Your task to perform on an android device: open a new tab in the chrome app Image 0: 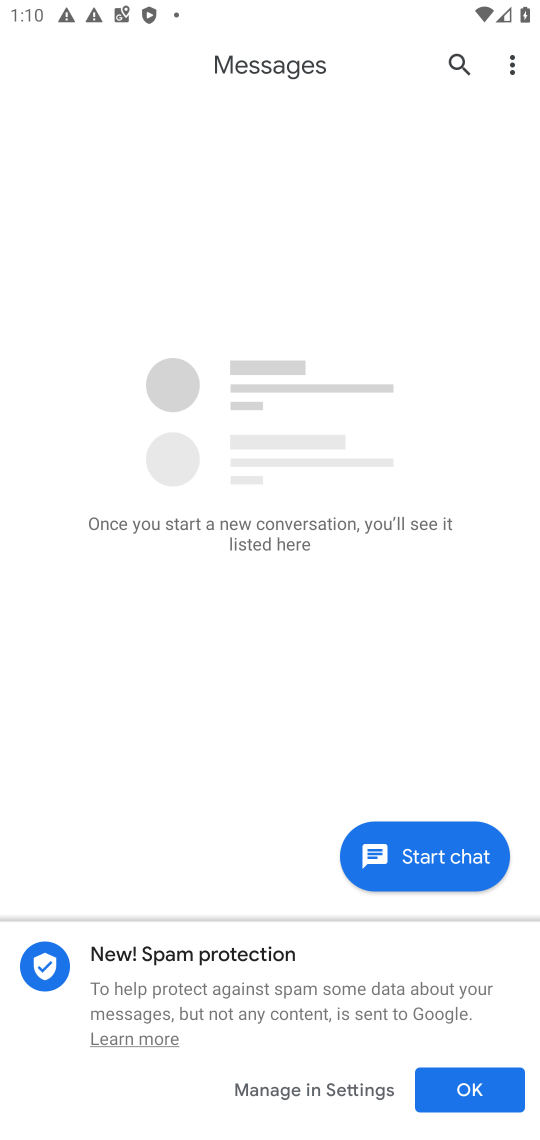
Step 0: press home button
Your task to perform on an android device: open a new tab in the chrome app Image 1: 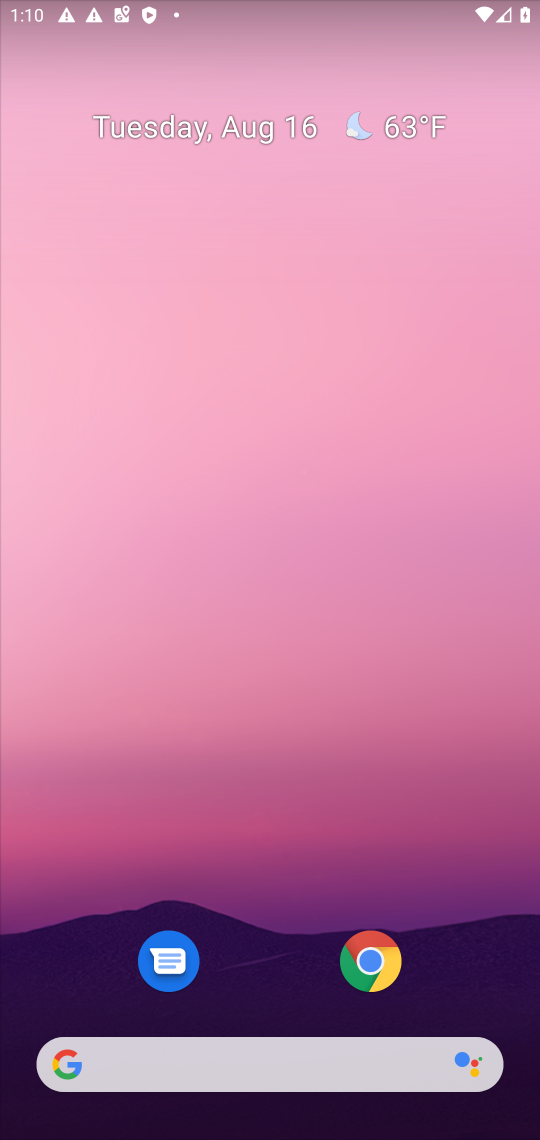
Step 1: drag from (494, 871) to (306, 42)
Your task to perform on an android device: open a new tab in the chrome app Image 2: 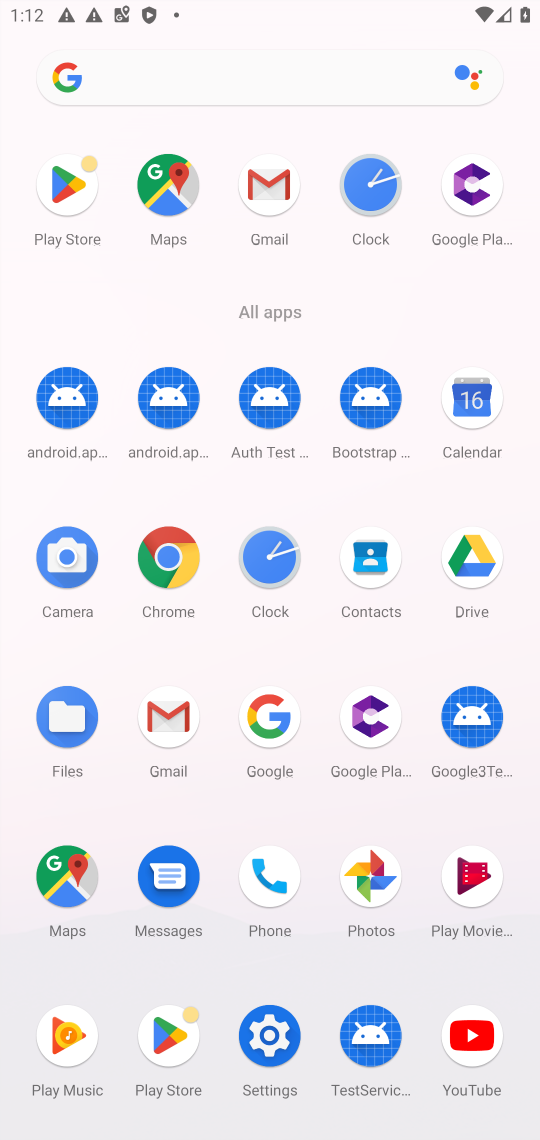
Step 2: click (168, 531)
Your task to perform on an android device: open a new tab in the chrome app Image 3: 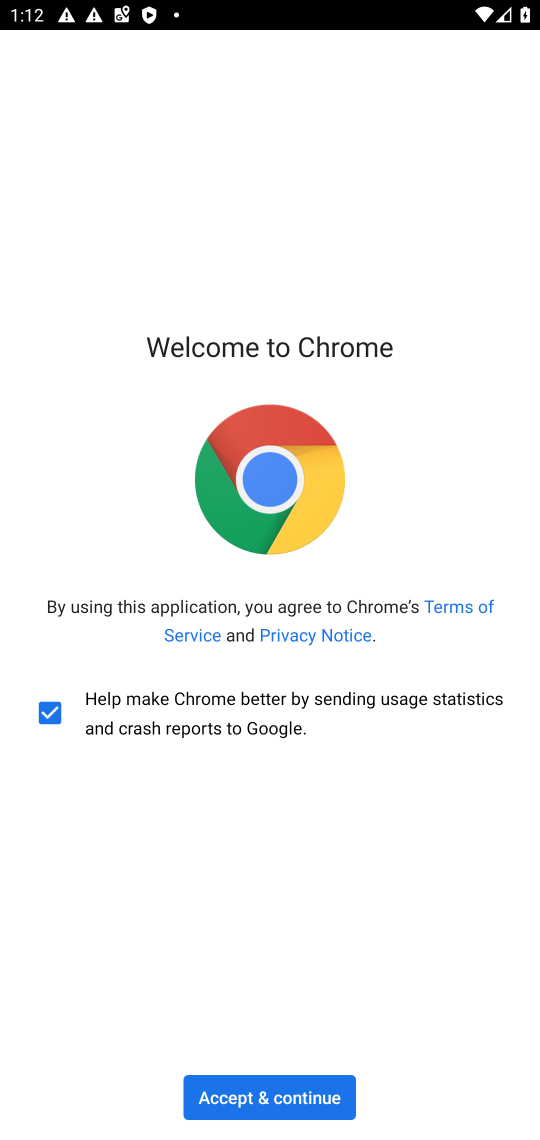
Step 3: click (256, 1095)
Your task to perform on an android device: open a new tab in the chrome app Image 4: 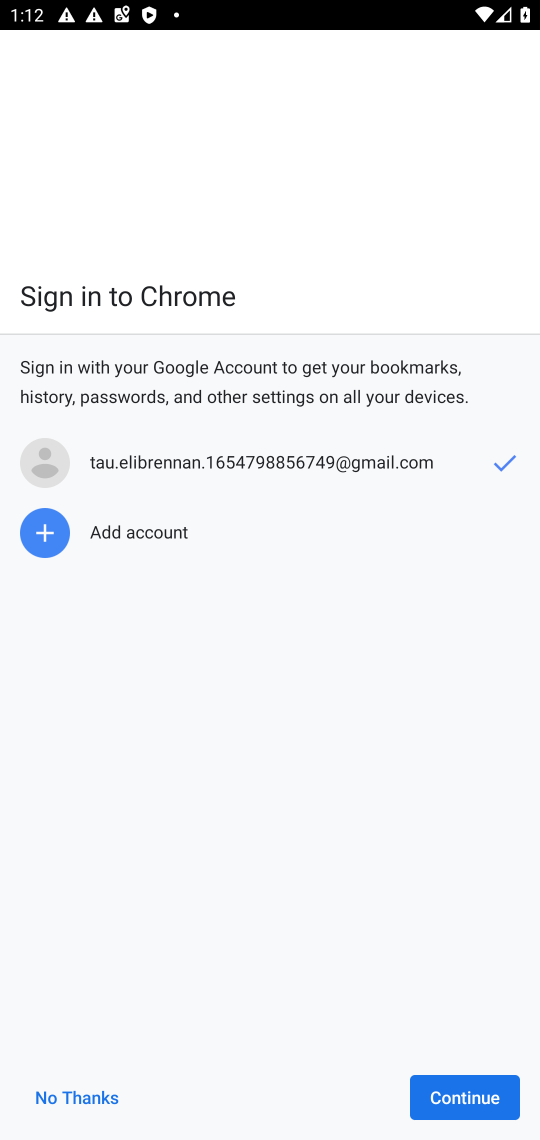
Step 4: click (445, 1100)
Your task to perform on an android device: open a new tab in the chrome app Image 5: 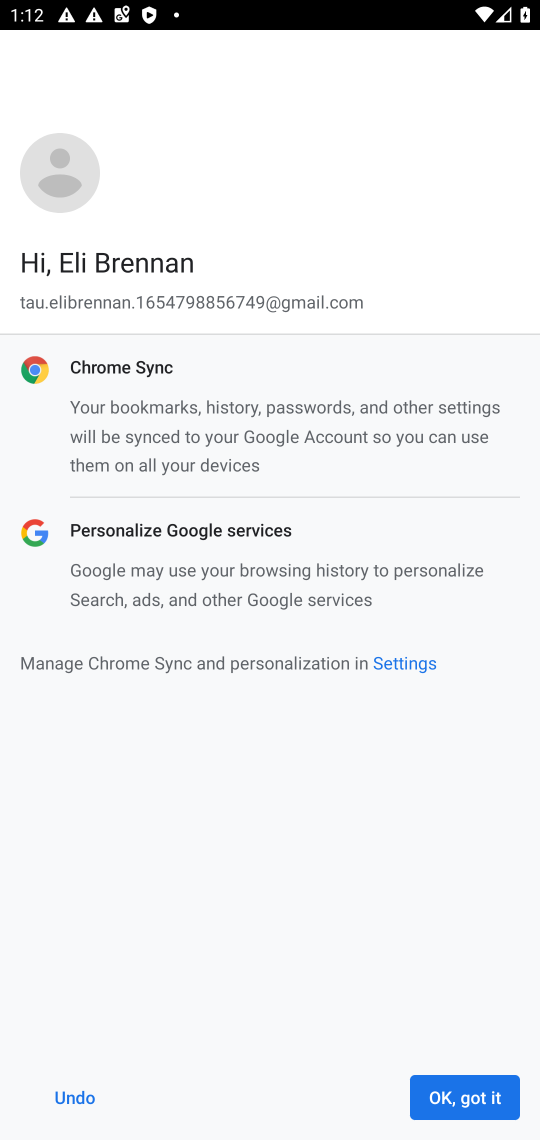
Step 5: click (452, 1091)
Your task to perform on an android device: open a new tab in the chrome app Image 6: 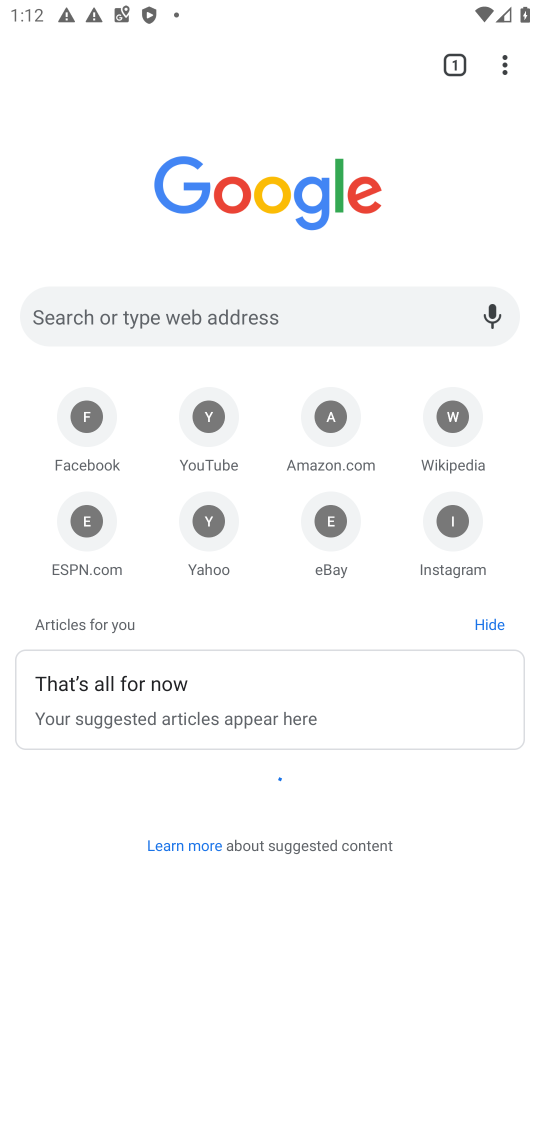
Step 6: click (500, 62)
Your task to perform on an android device: open a new tab in the chrome app Image 7: 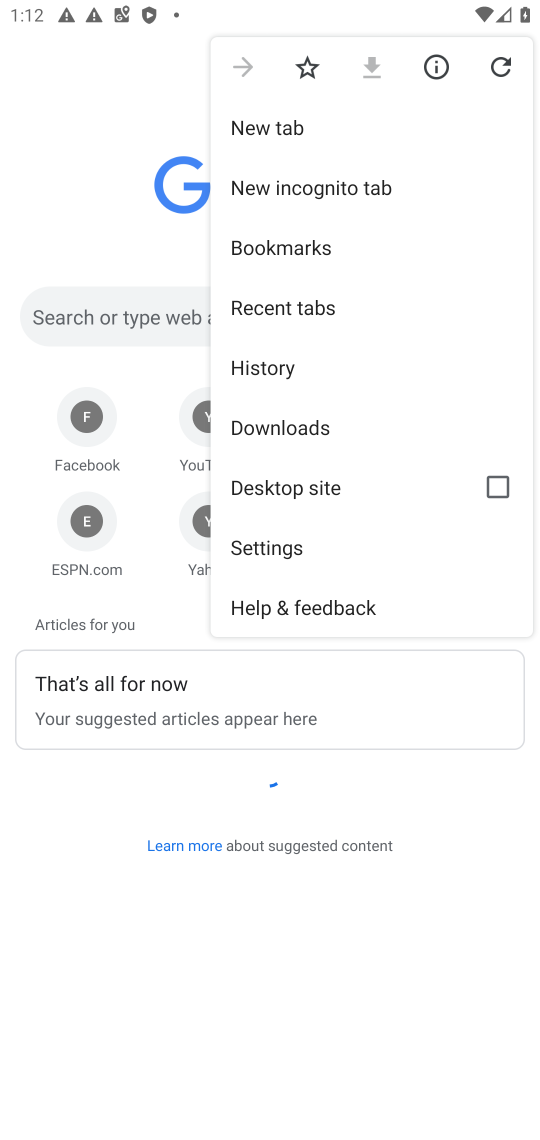
Step 7: click (293, 136)
Your task to perform on an android device: open a new tab in the chrome app Image 8: 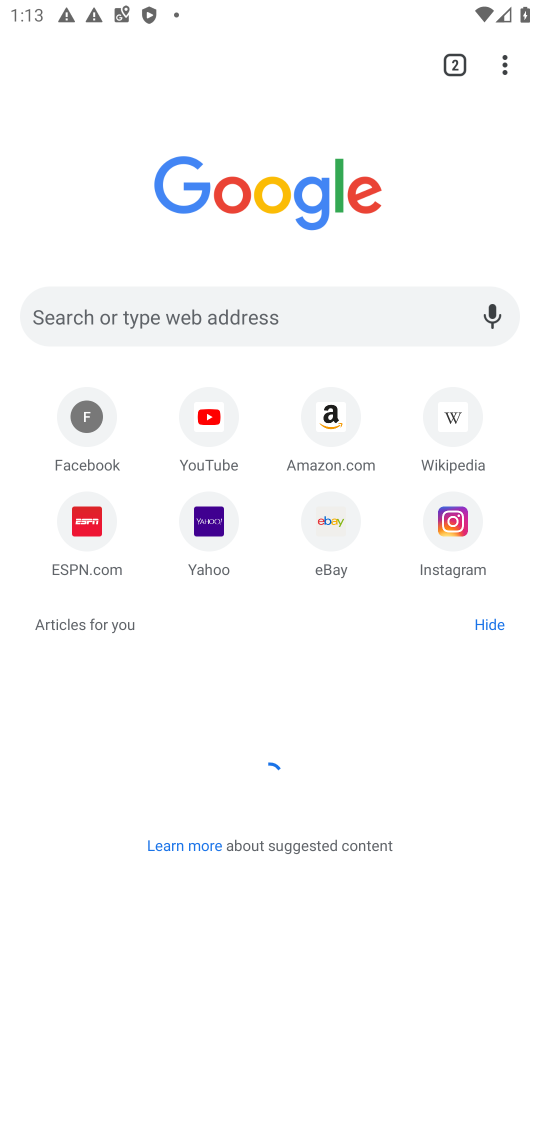
Step 8: task complete